Your task to perform on an android device: Go to ESPN.com Image 0: 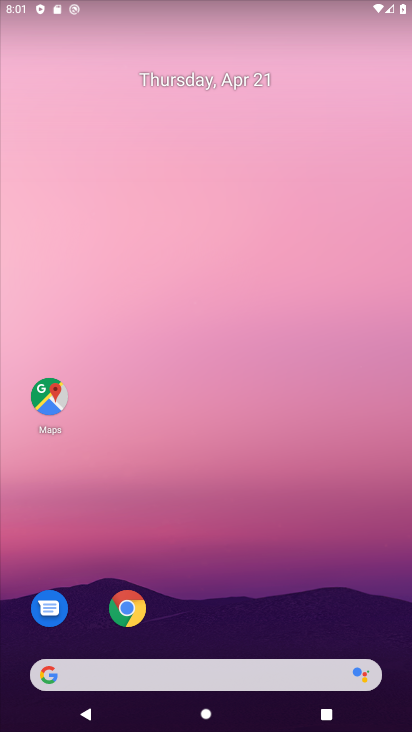
Step 0: click (126, 608)
Your task to perform on an android device: Go to ESPN.com Image 1: 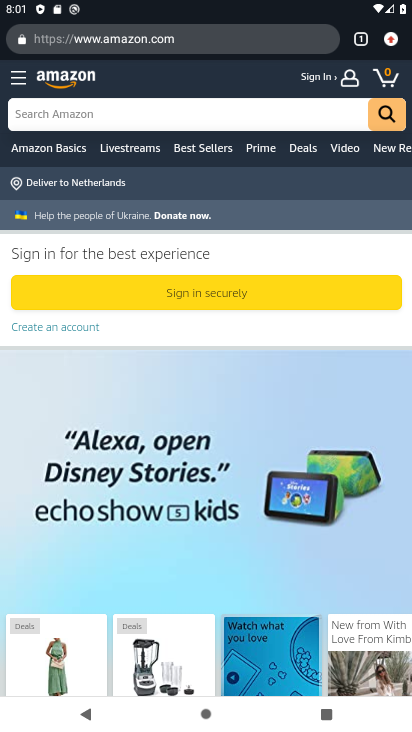
Step 1: click (357, 48)
Your task to perform on an android device: Go to ESPN.com Image 2: 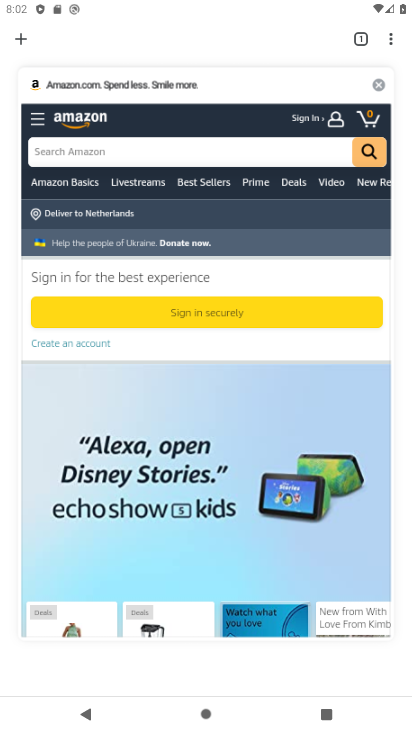
Step 2: click (16, 48)
Your task to perform on an android device: Go to ESPN.com Image 3: 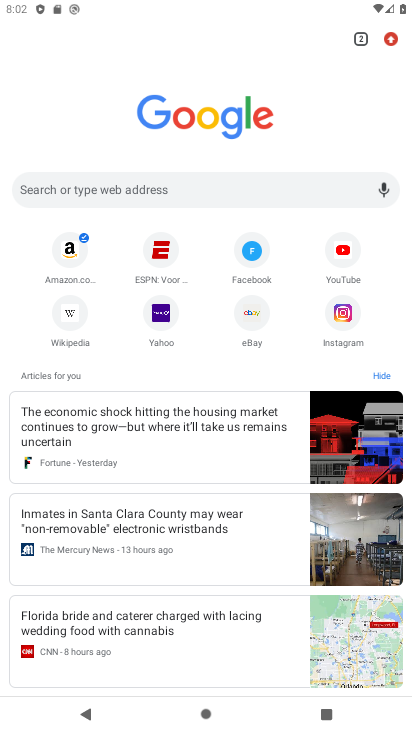
Step 3: click (153, 266)
Your task to perform on an android device: Go to ESPN.com Image 4: 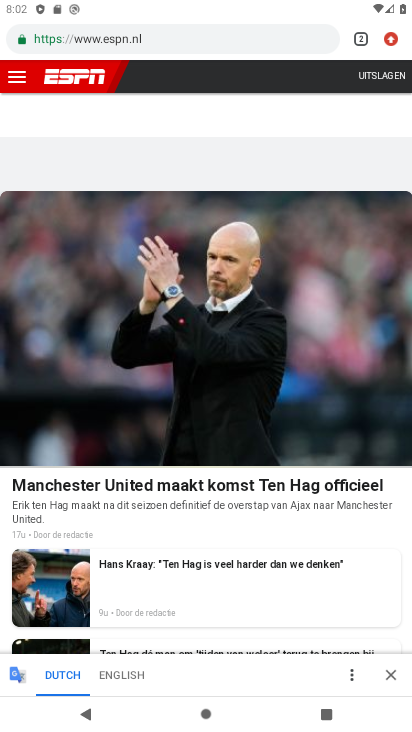
Step 4: task complete